Your task to perform on an android device: change text size in settings app Image 0: 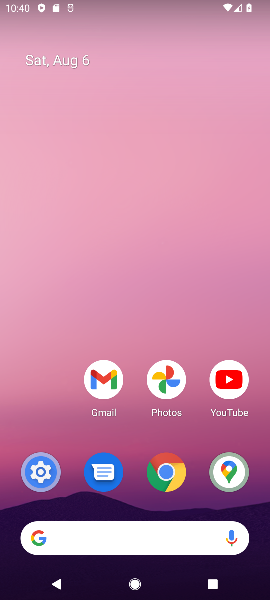
Step 0: drag from (214, 511) to (186, 81)
Your task to perform on an android device: change text size in settings app Image 1: 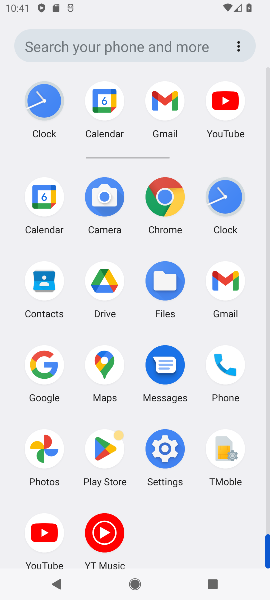
Step 1: click (150, 462)
Your task to perform on an android device: change text size in settings app Image 2: 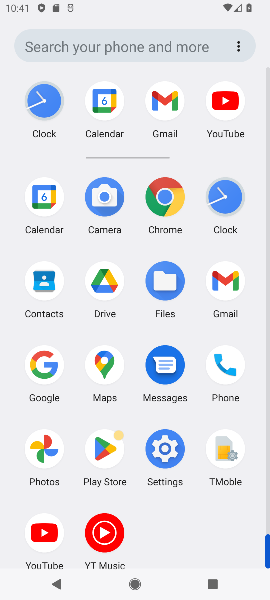
Step 2: click (150, 462)
Your task to perform on an android device: change text size in settings app Image 3: 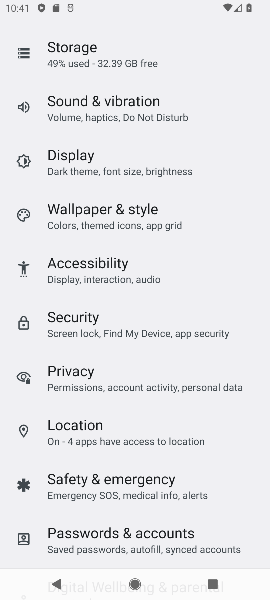
Step 3: click (150, 462)
Your task to perform on an android device: change text size in settings app Image 4: 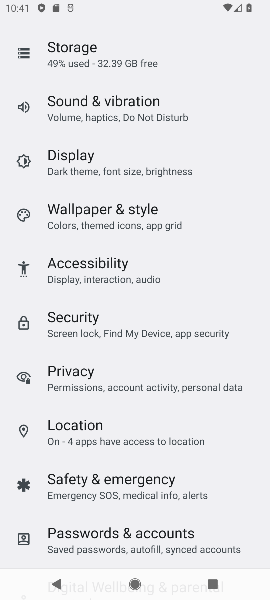
Step 4: click (154, 456)
Your task to perform on an android device: change text size in settings app Image 5: 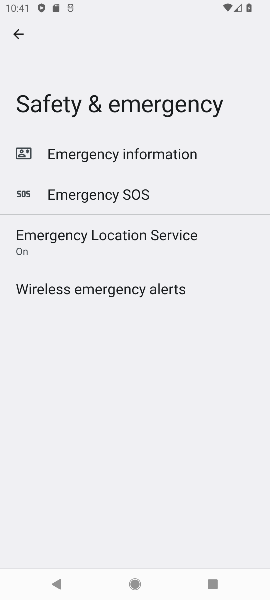
Step 5: click (16, 32)
Your task to perform on an android device: change text size in settings app Image 6: 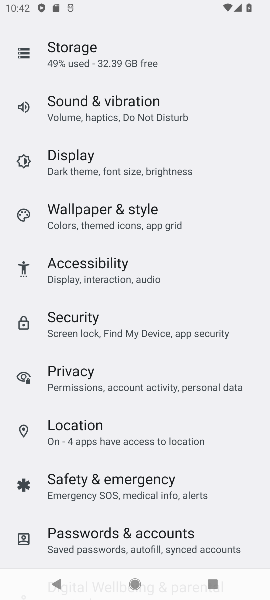
Step 6: click (61, 166)
Your task to perform on an android device: change text size in settings app Image 7: 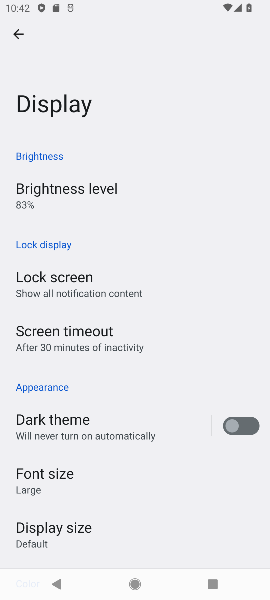
Step 7: click (30, 482)
Your task to perform on an android device: change text size in settings app Image 8: 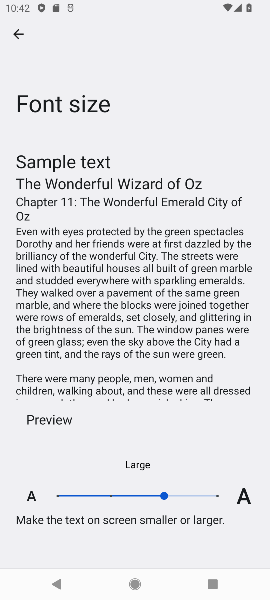
Step 8: click (217, 490)
Your task to perform on an android device: change text size in settings app Image 9: 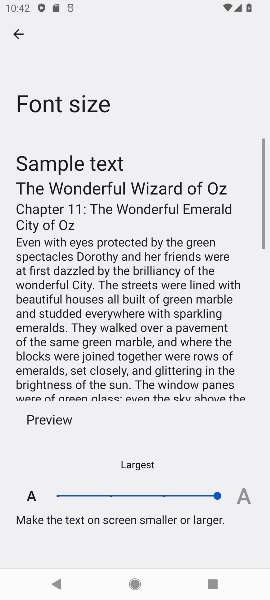
Step 9: task complete